Your task to perform on an android device: What is the speed of a cheetah? Image 0: 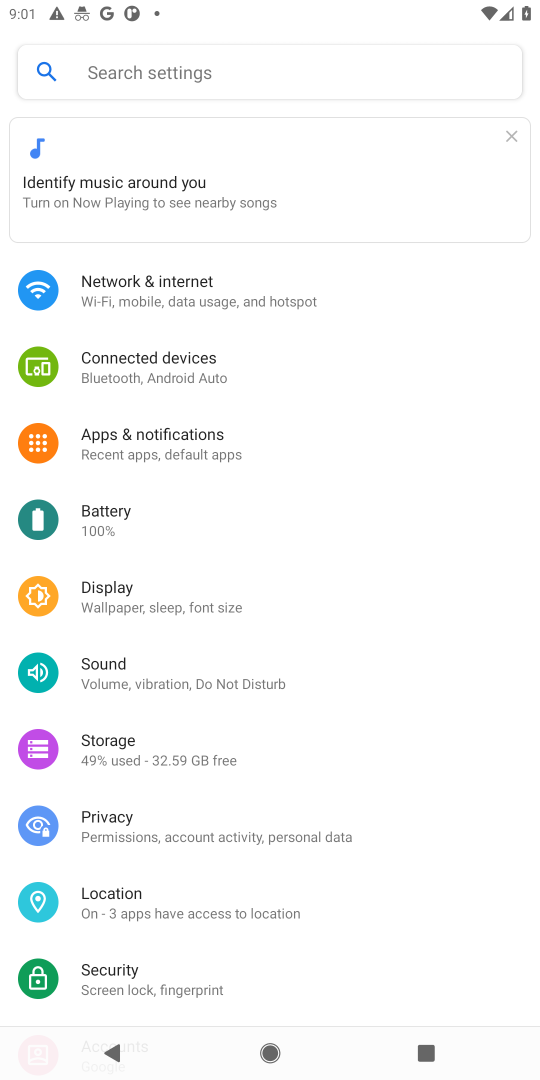
Step 0: press home button
Your task to perform on an android device: What is the speed of a cheetah? Image 1: 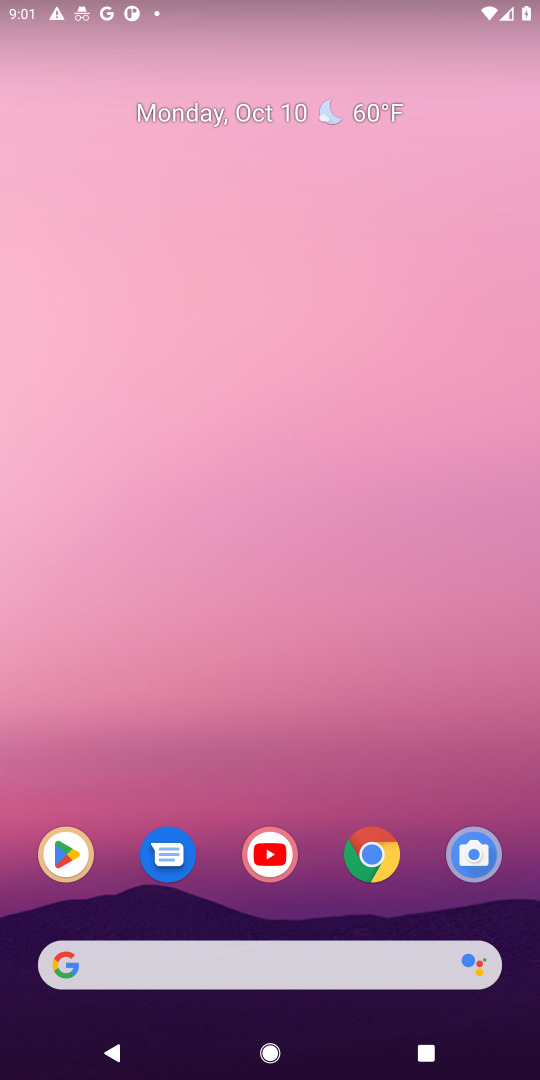
Step 1: click (365, 852)
Your task to perform on an android device: What is the speed of a cheetah? Image 2: 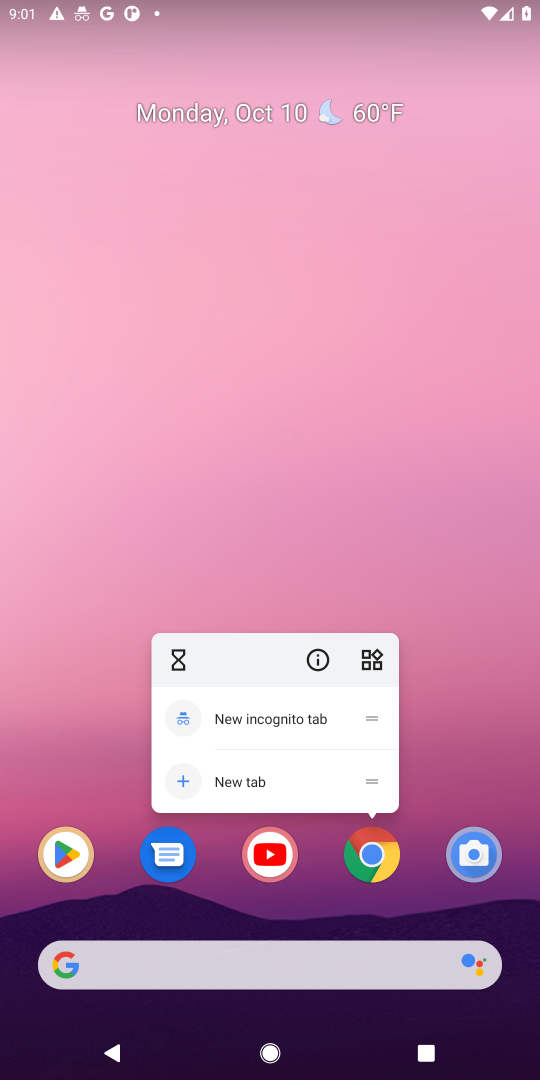
Step 2: click (379, 872)
Your task to perform on an android device: What is the speed of a cheetah? Image 3: 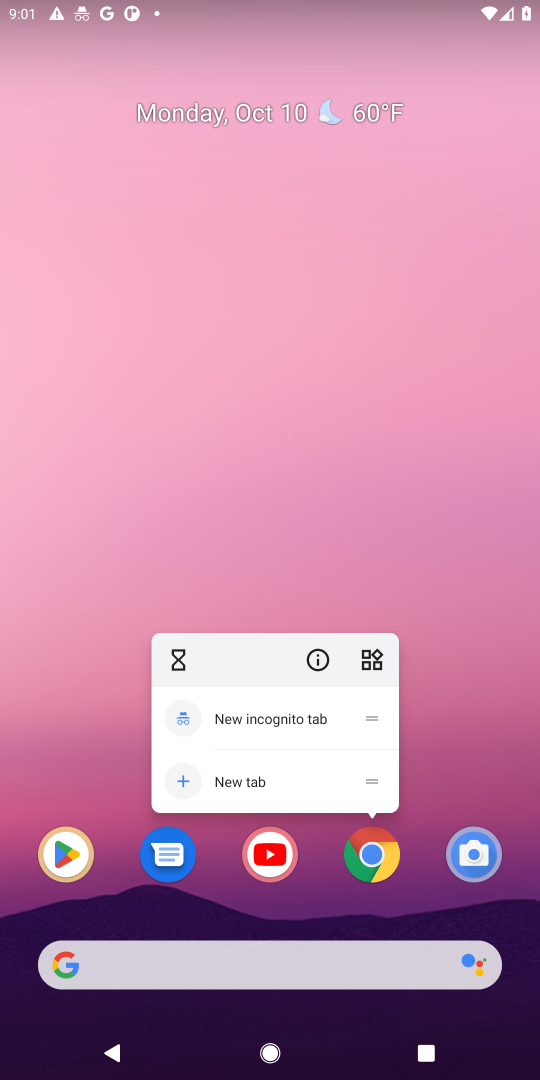
Step 3: click (379, 872)
Your task to perform on an android device: What is the speed of a cheetah? Image 4: 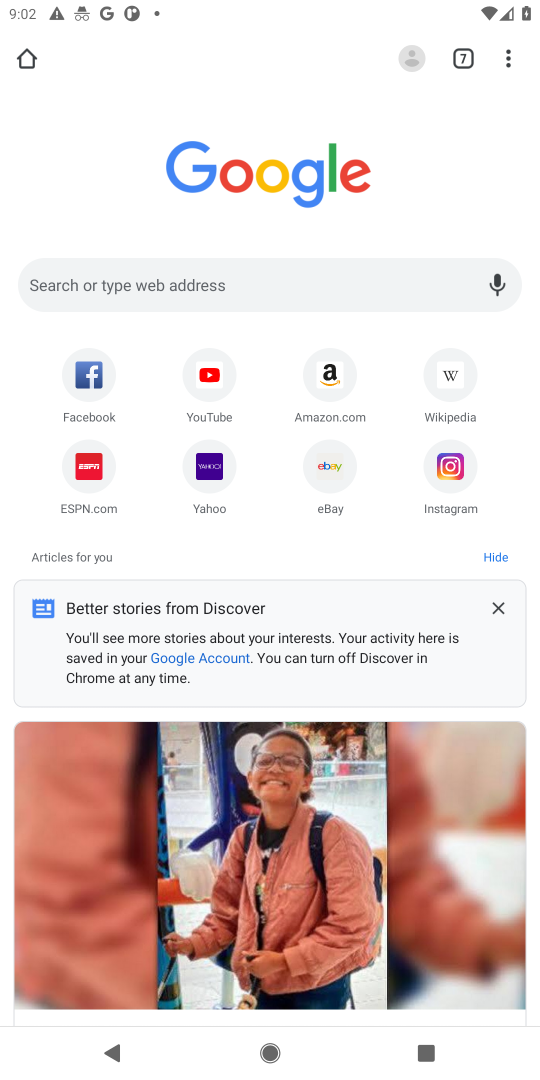
Step 4: click (211, 271)
Your task to perform on an android device: What is the speed of a cheetah? Image 5: 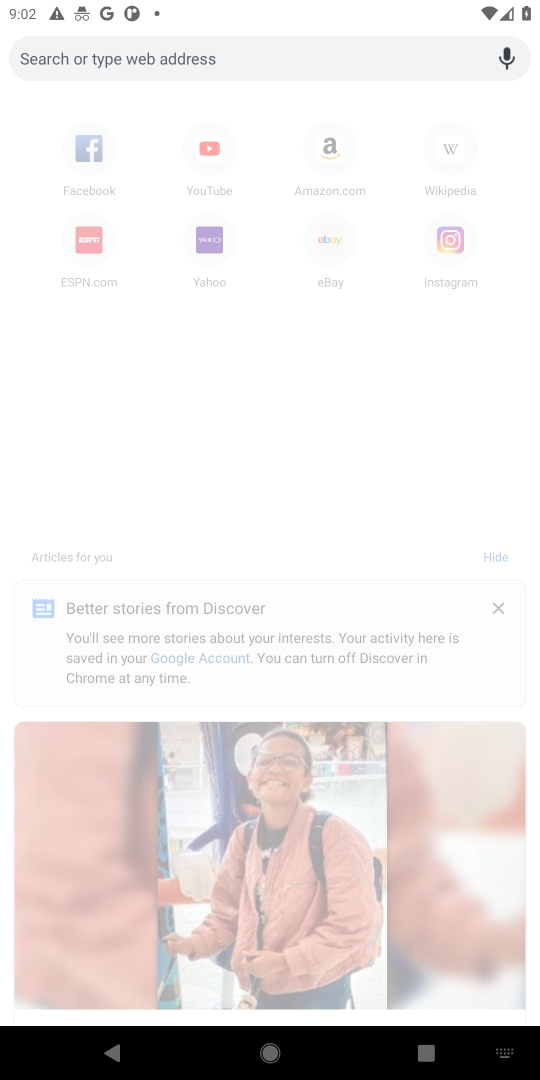
Step 5: type "What is the speed of a cheetah"
Your task to perform on an android device: What is the speed of a cheetah? Image 6: 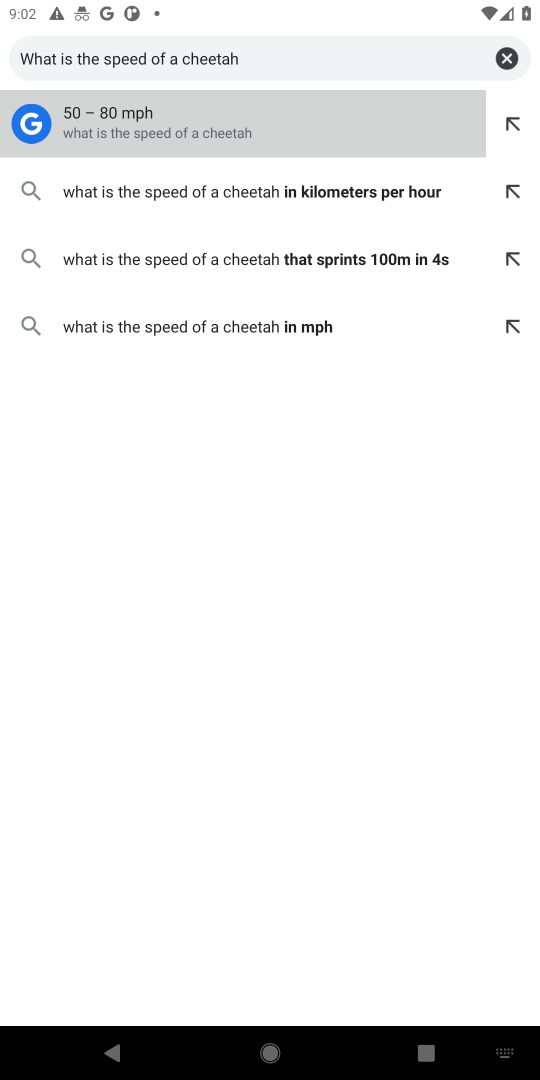
Step 6: press enter
Your task to perform on an android device: What is the speed of a cheetah? Image 7: 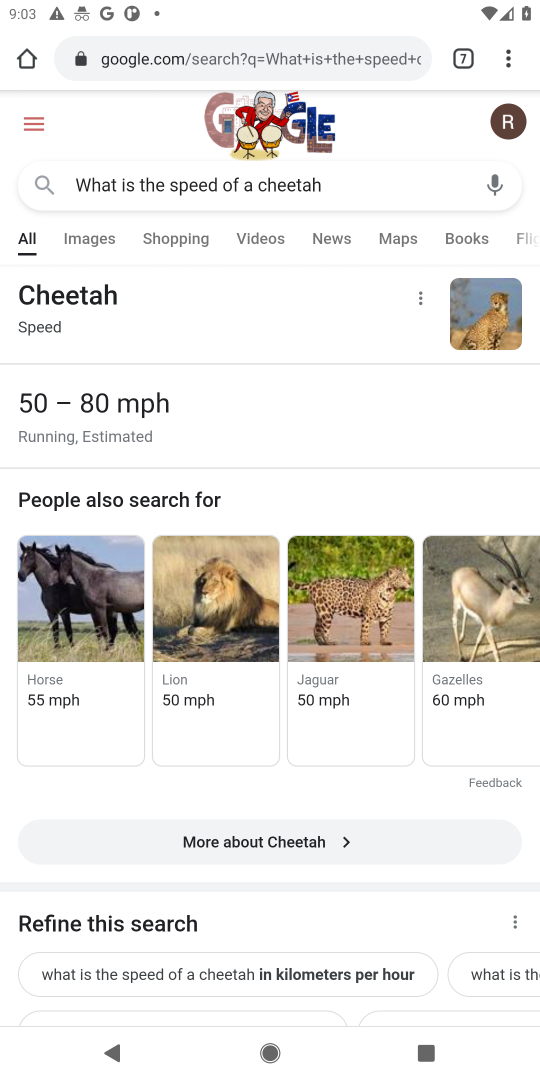
Step 7: drag from (346, 692) to (456, 228)
Your task to perform on an android device: What is the speed of a cheetah? Image 8: 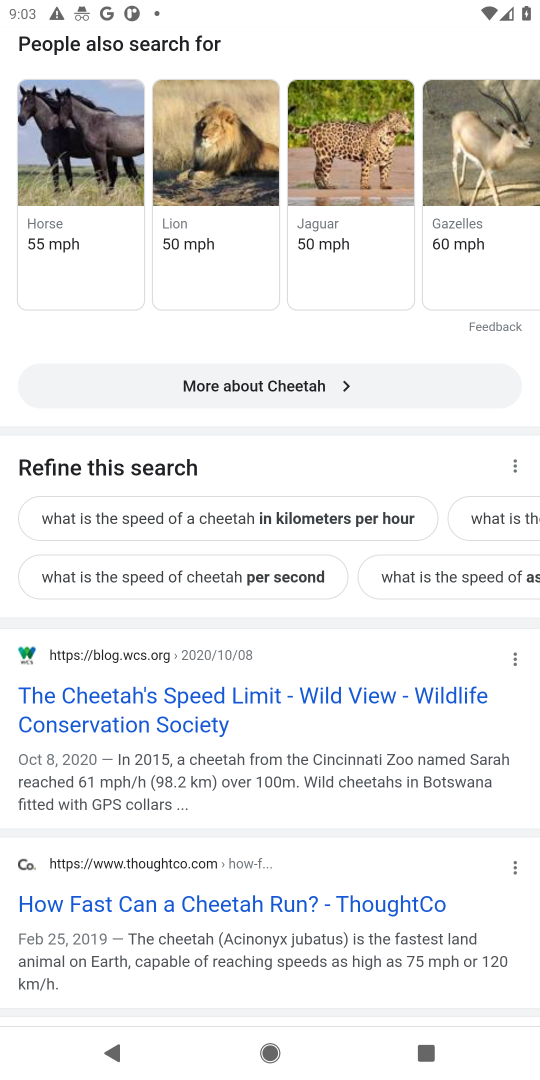
Step 8: click (258, 696)
Your task to perform on an android device: What is the speed of a cheetah? Image 9: 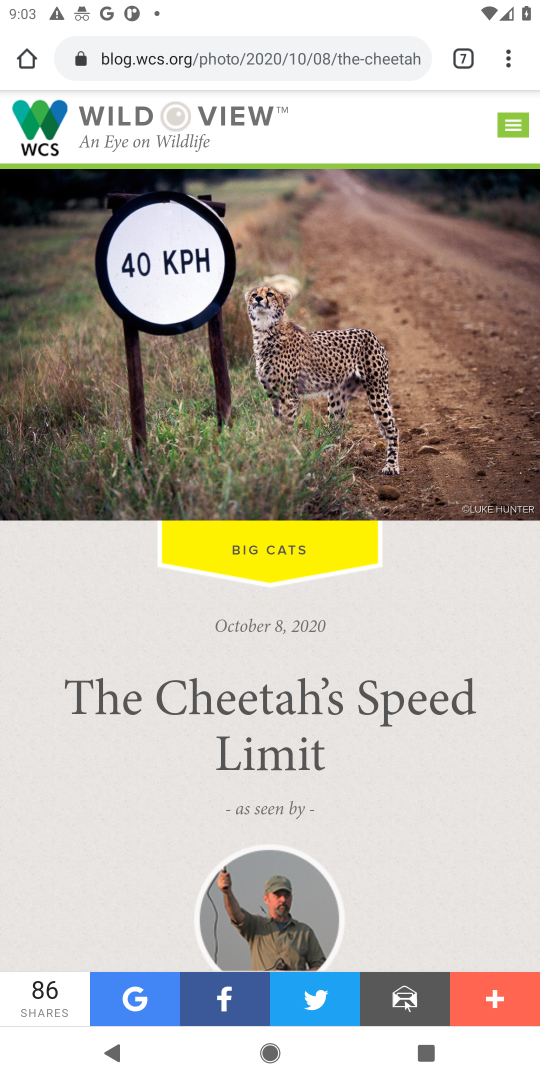
Step 9: task complete